Your task to perform on an android device: empty trash in google photos Image 0: 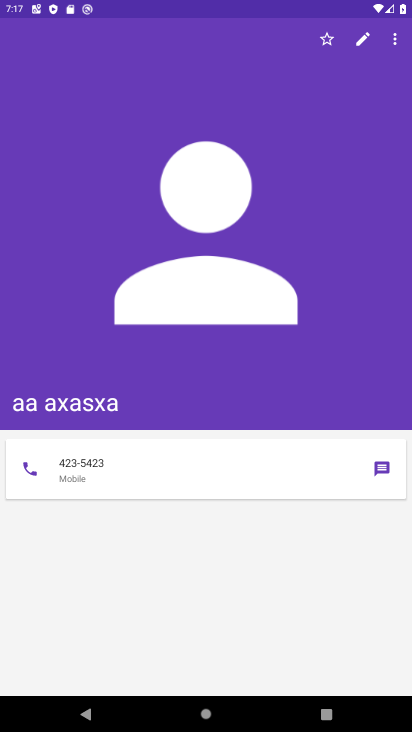
Step 0: press home button
Your task to perform on an android device: empty trash in google photos Image 1: 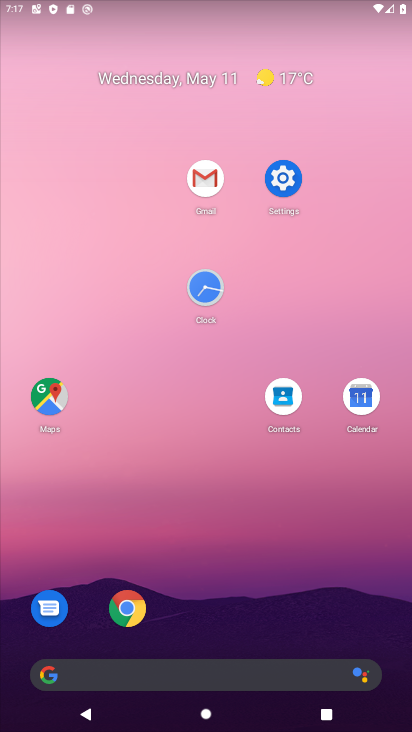
Step 1: drag from (235, 556) to (170, 87)
Your task to perform on an android device: empty trash in google photos Image 2: 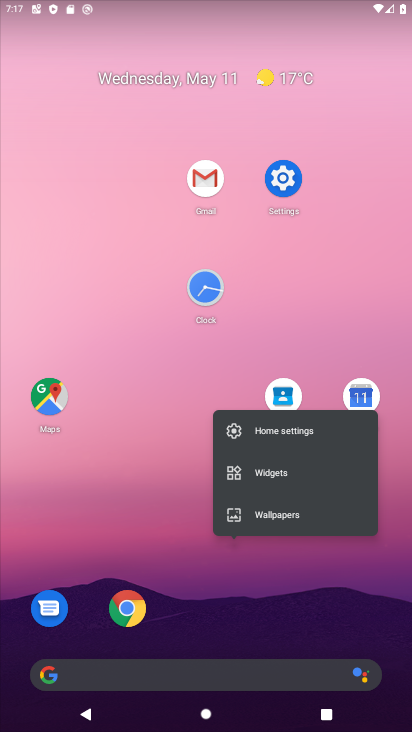
Step 2: click (132, 423)
Your task to perform on an android device: empty trash in google photos Image 3: 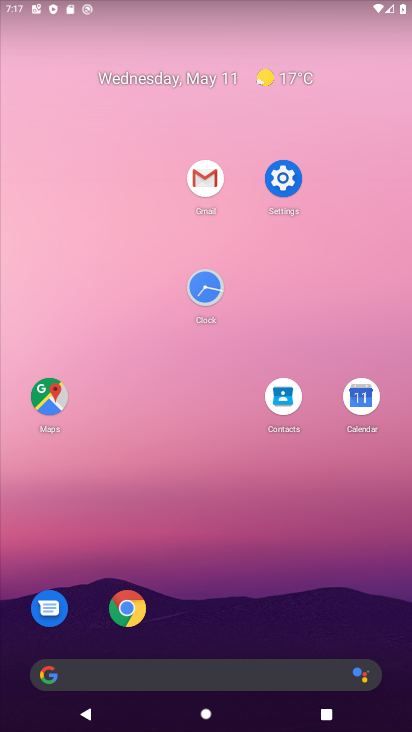
Step 3: drag from (188, 601) to (168, 0)
Your task to perform on an android device: empty trash in google photos Image 4: 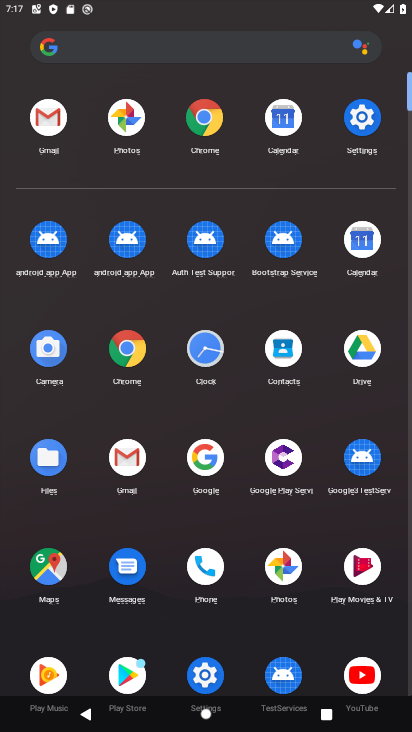
Step 4: click (126, 135)
Your task to perform on an android device: empty trash in google photos Image 5: 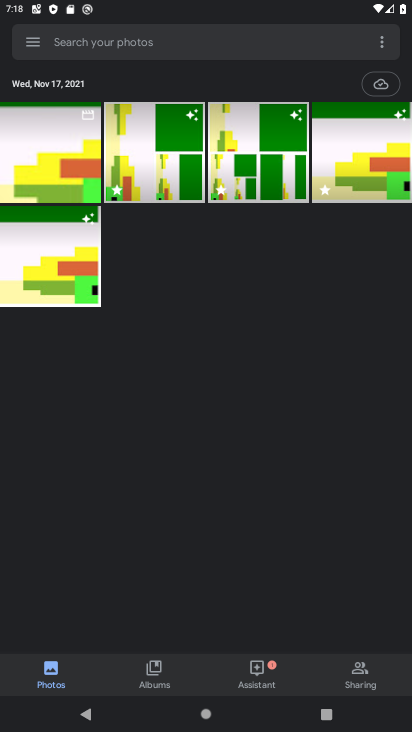
Step 5: click (39, 32)
Your task to perform on an android device: empty trash in google photos Image 6: 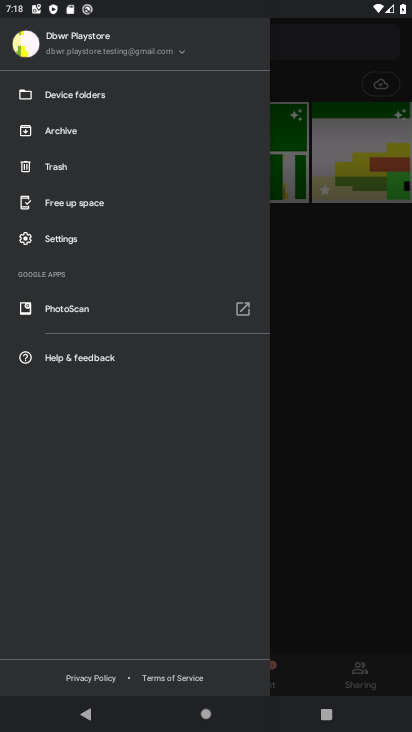
Step 6: click (102, 174)
Your task to perform on an android device: empty trash in google photos Image 7: 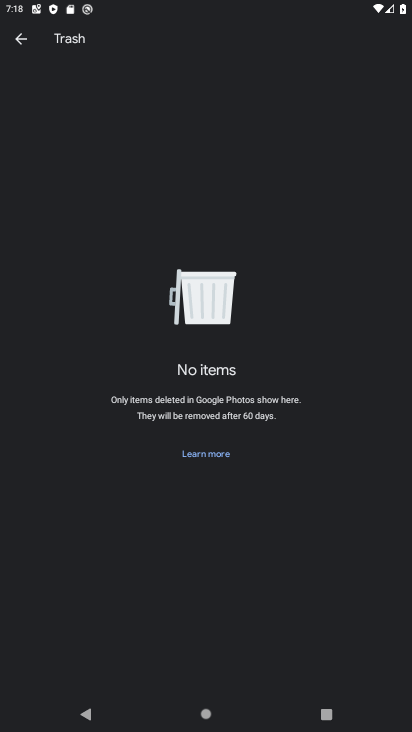
Step 7: task complete